Your task to perform on an android device: toggle javascript in the chrome app Image 0: 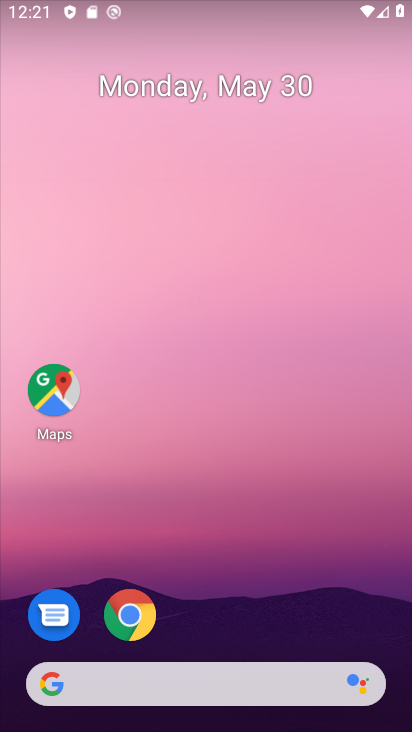
Step 0: click (137, 613)
Your task to perform on an android device: toggle javascript in the chrome app Image 1: 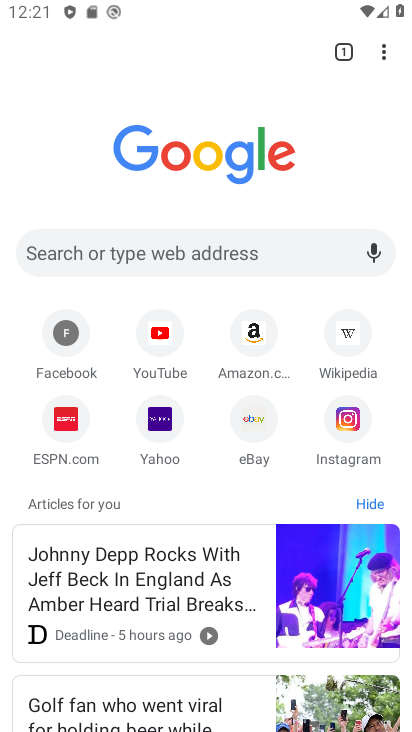
Step 1: drag from (385, 51) to (207, 436)
Your task to perform on an android device: toggle javascript in the chrome app Image 2: 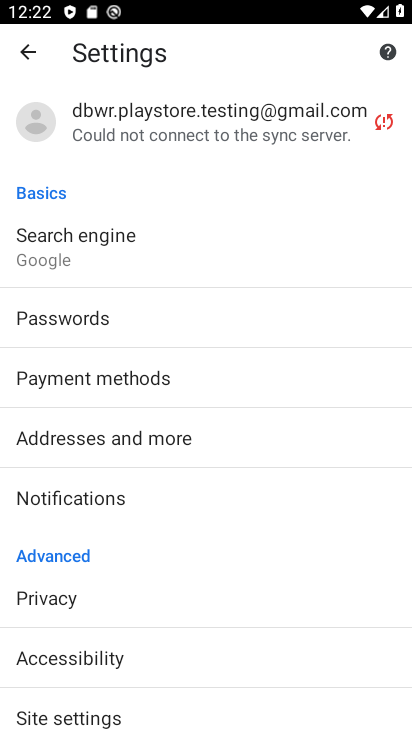
Step 2: drag from (114, 659) to (177, 198)
Your task to perform on an android device: toggle javascript in the chrome app Image 3: 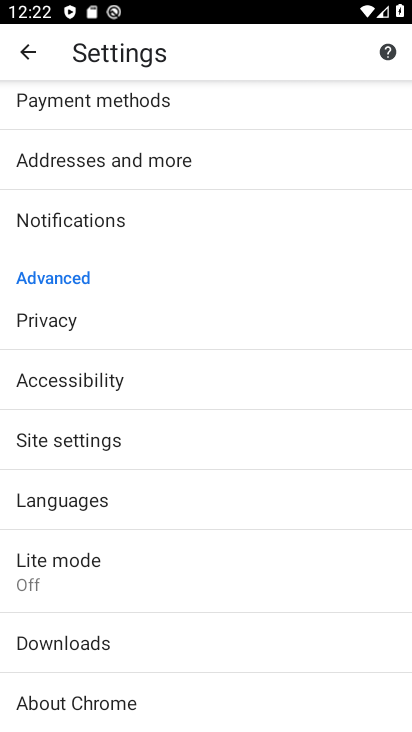
Step 3: click (67, 437)
Your task to perform on an android device: toggle javascript in the chrome app Image 4: 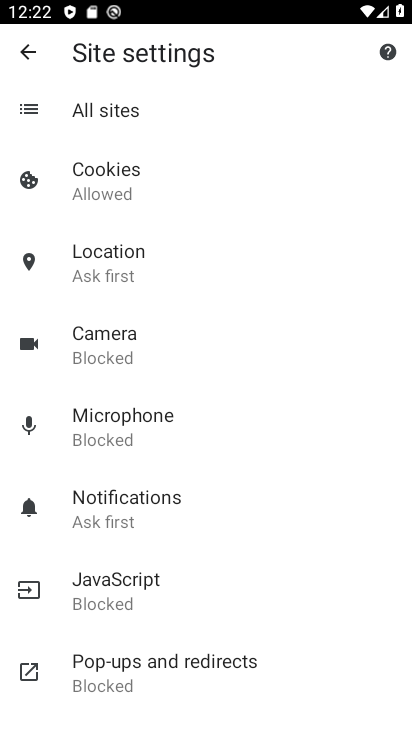
Step 4: click (136, 582)
Your task to perform on an android device: toggle javascript in the chrome app Image 5: 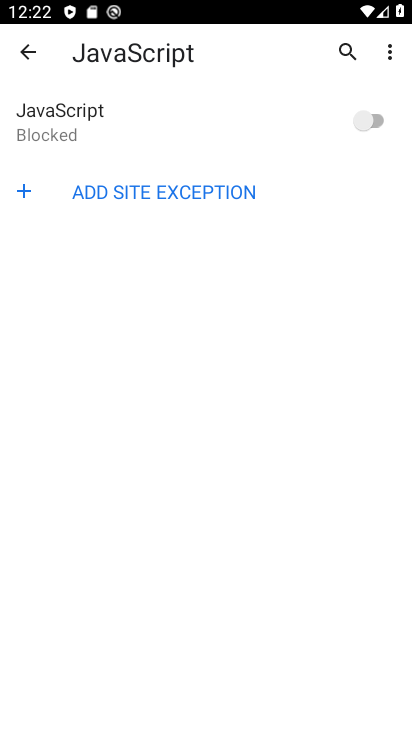
Step 5: click (359, 117)
Your task to perform on an android device: toggle javascript in the chrome app Image 6: 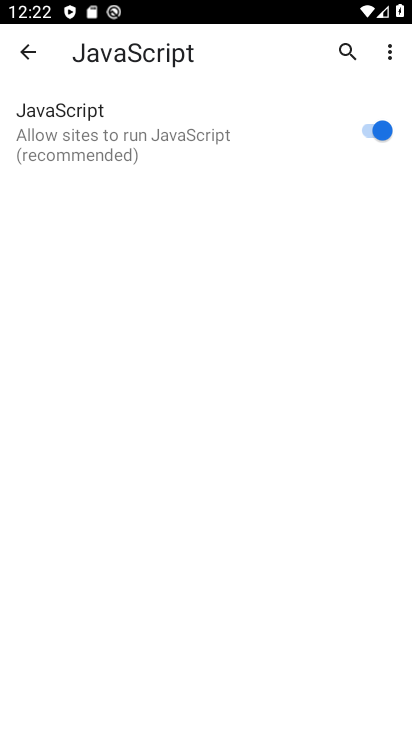
Step 6: task complete